Your task to perform on an android device: Add razer blade to the cart on walmart.com, then select checkout. Image 0: 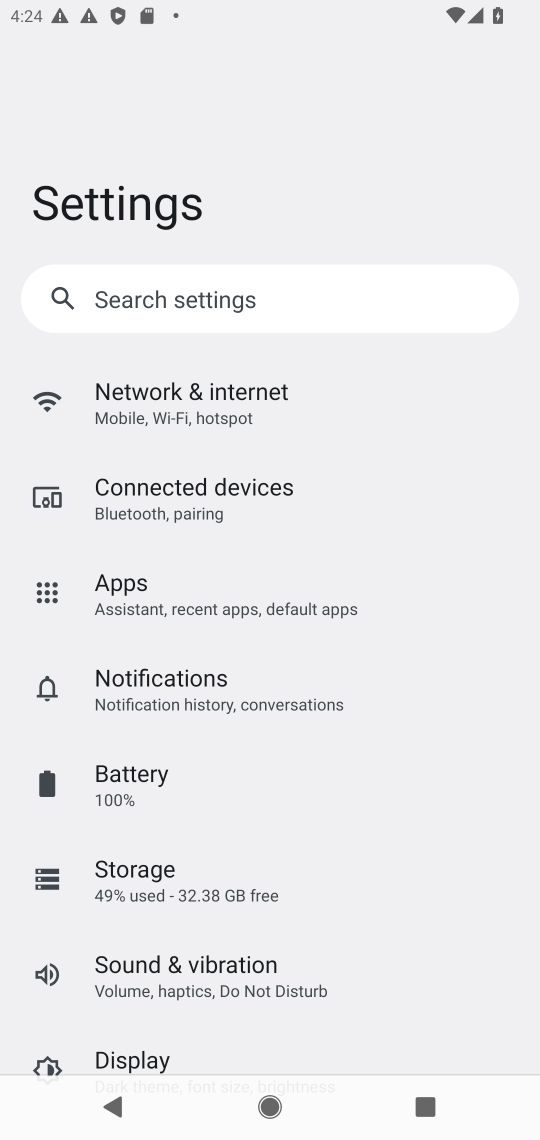
Step 0: press home button
Your task to perform on an android device: Add razer blade to the cart on walmart.com, then select checkout. Image 1: 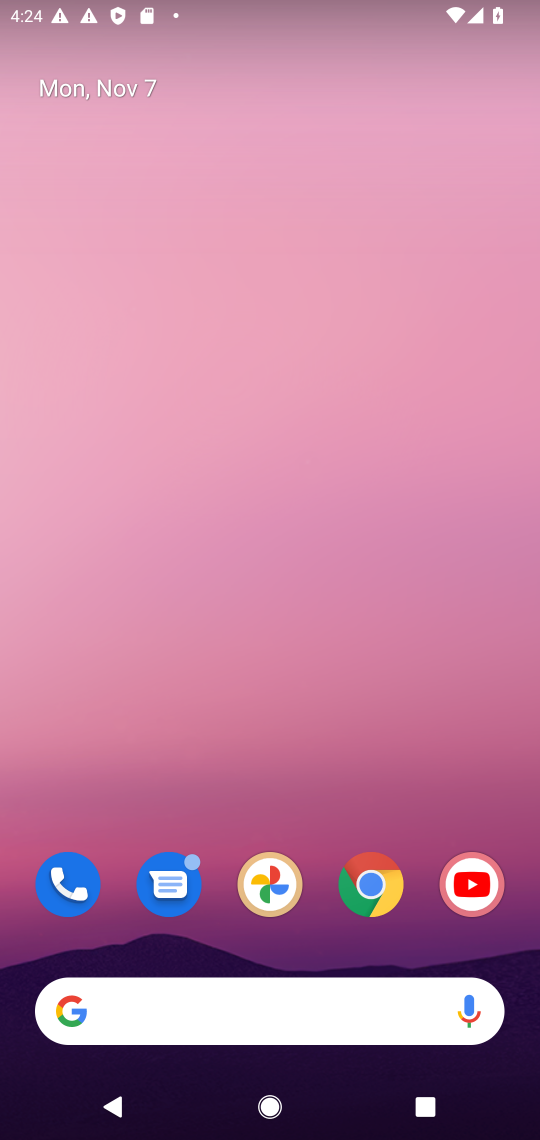
Step 1: drag from (293, 977) to (363, 125)
Your task to perform on an android device: Add razer blade to the cart on walmart.com, then select checkout. Image 2: 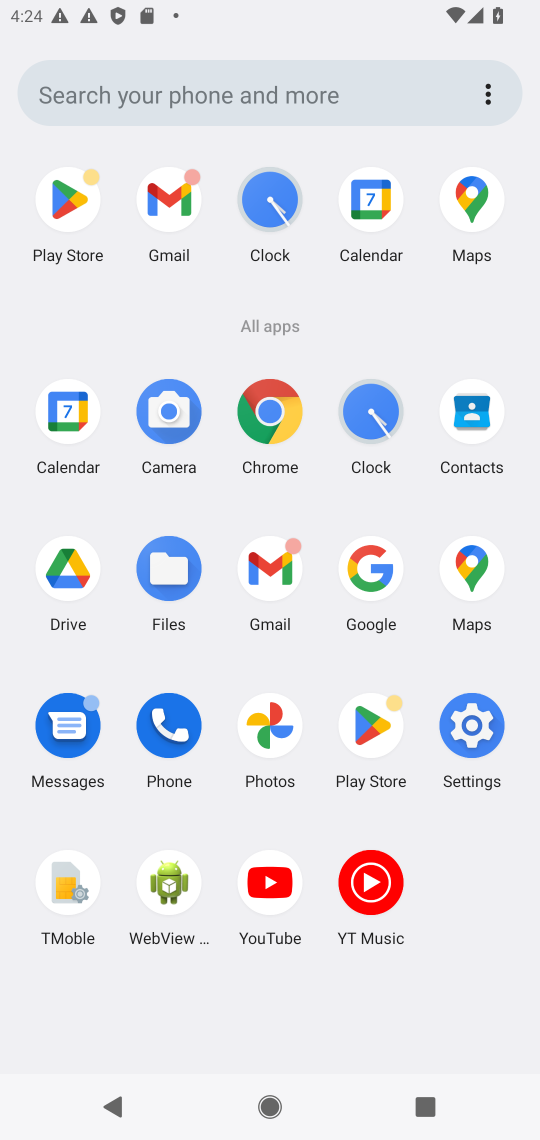
Step 2: click (278, 407)
Your task to perform on an android device: Add razer blade to the cart on walmart.com, then select checkout. Image 3: 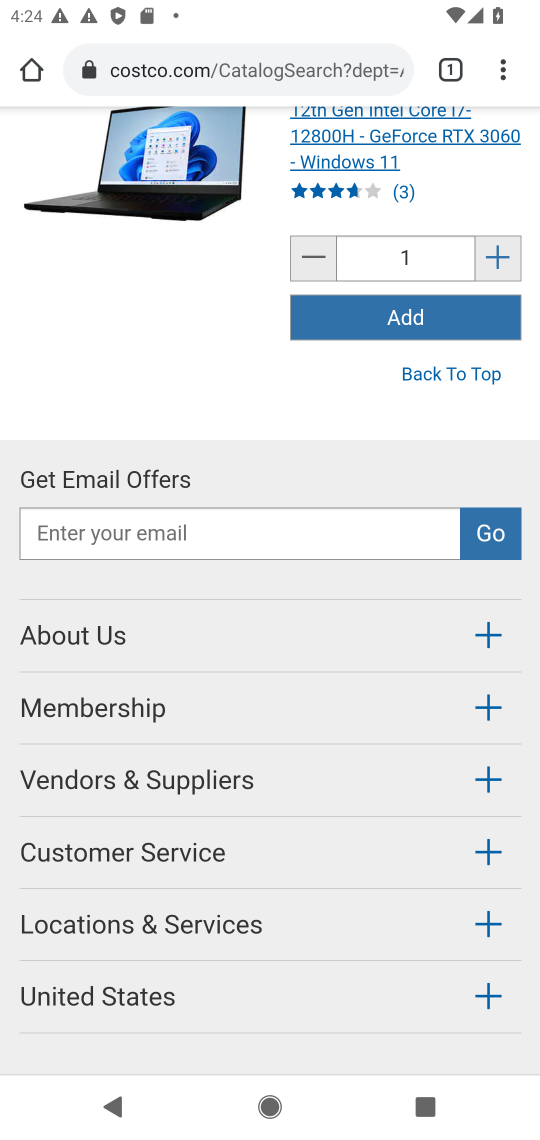
Step 3: click (219, 66)
Your task to perform on an android device: Add razer blade to the cart on walmart.com, then select checkout. Image 4: 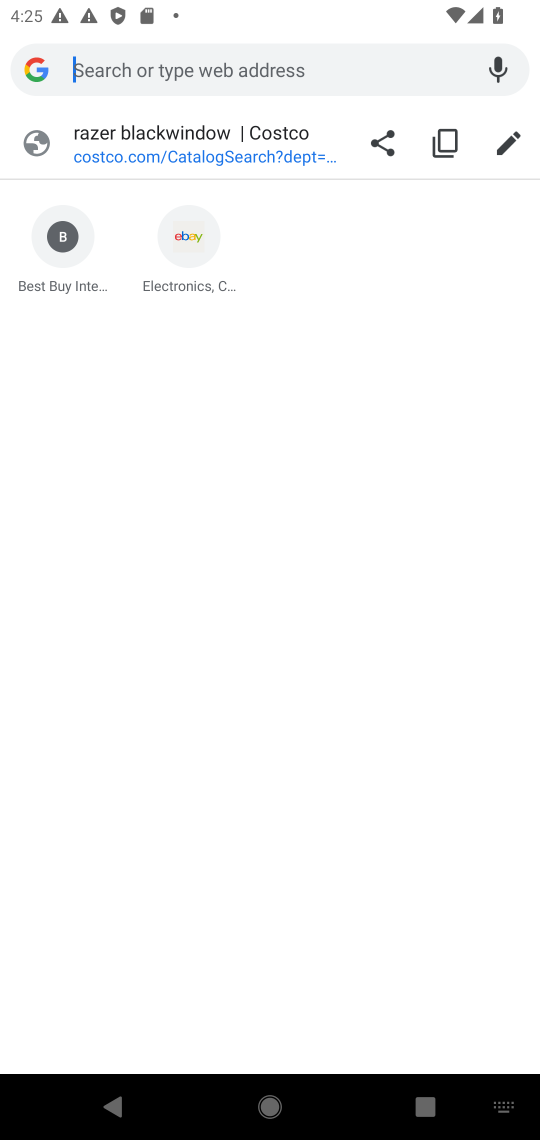
Step 4: type "walmart.com"
Your task to perform on an android device: Add razer blade to the cart on walmart.com, then select checkout. Image 5: 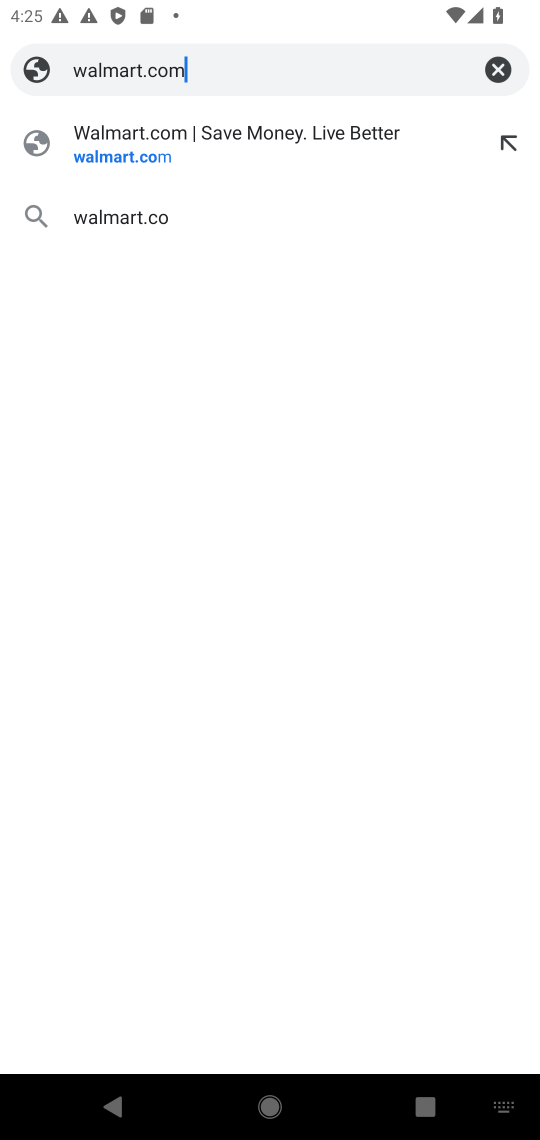
Step 5: press enter
Your task to perform on an android device: Add razer blade to the cart on walmart.com, then select checkout. Image 6: 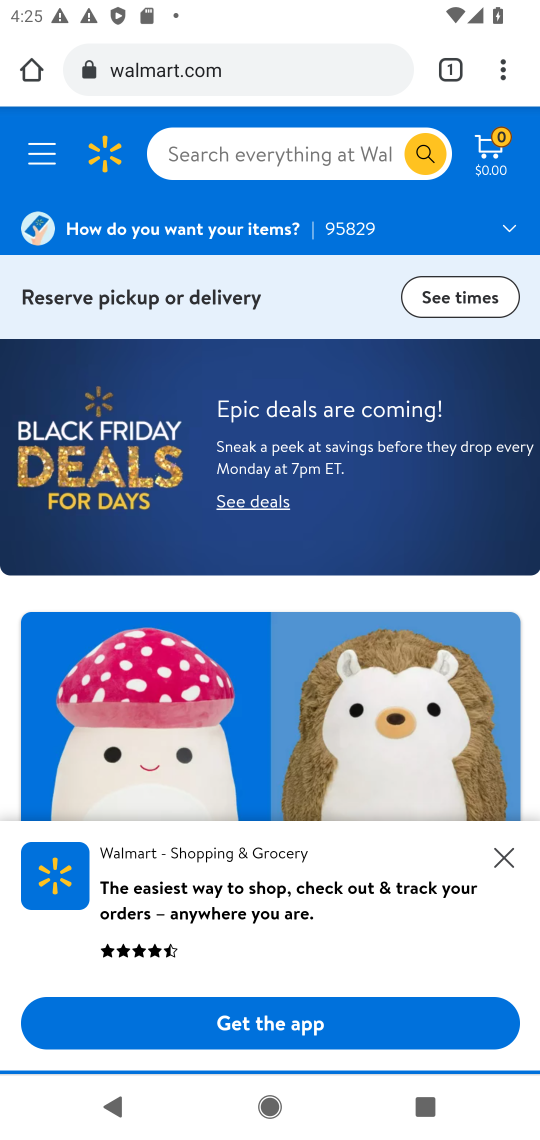
Step 6: click (323, 161)
Your task to perform on an android device: Add razer blade to the cart on walmart.com, then select checkout. Image 7: 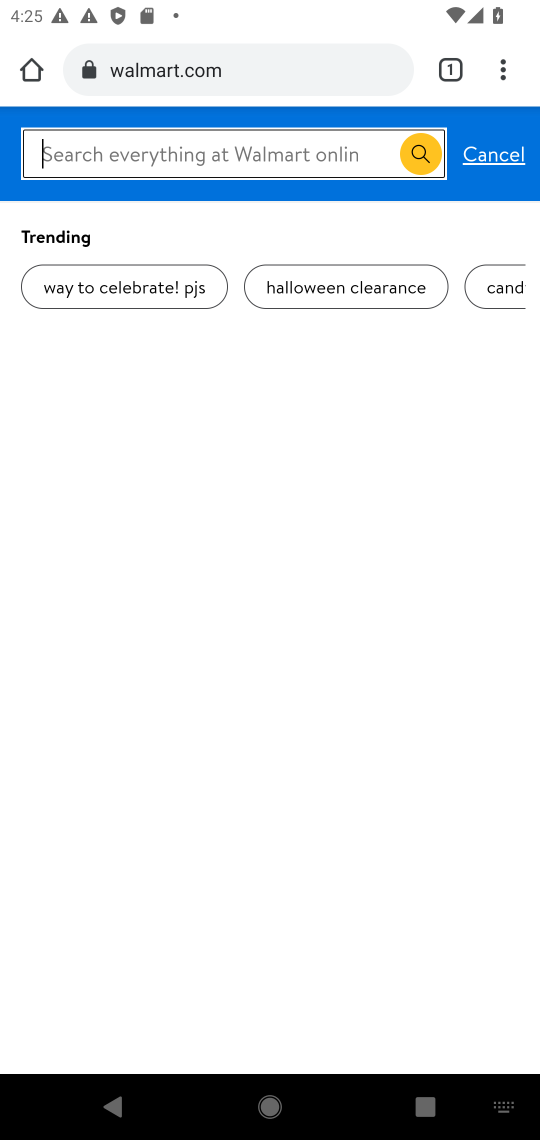
Step 7: type "razer blade"
Your task to perform on an android device: Add razer blade to the cart on walmart.com, then select checkout. Image 8: 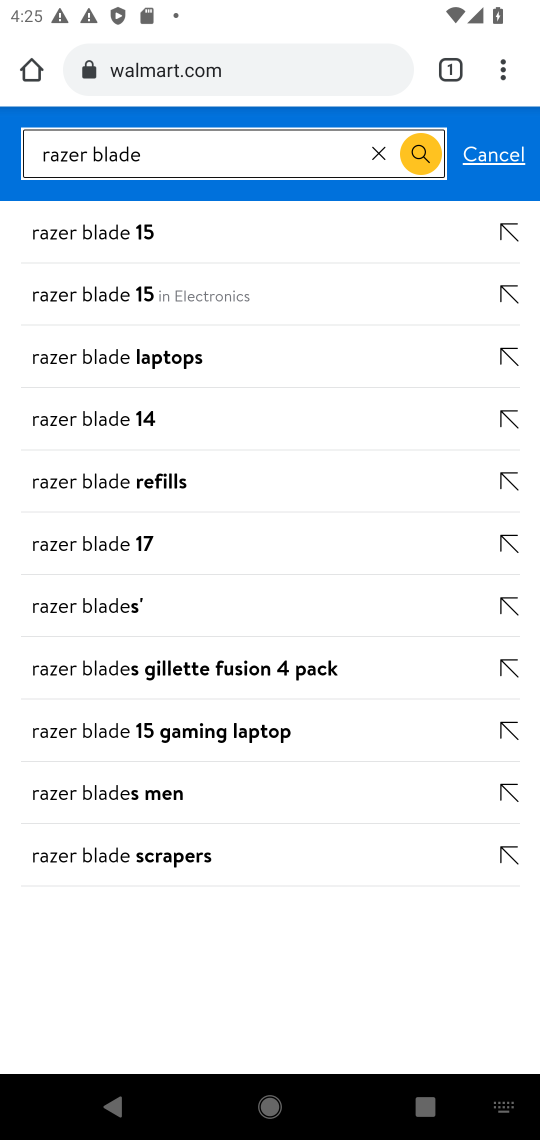
Step 8: press enter
Your task to perform on an android device: Add razer blade to the cart on walmart.com, then select checkout. Image 9: 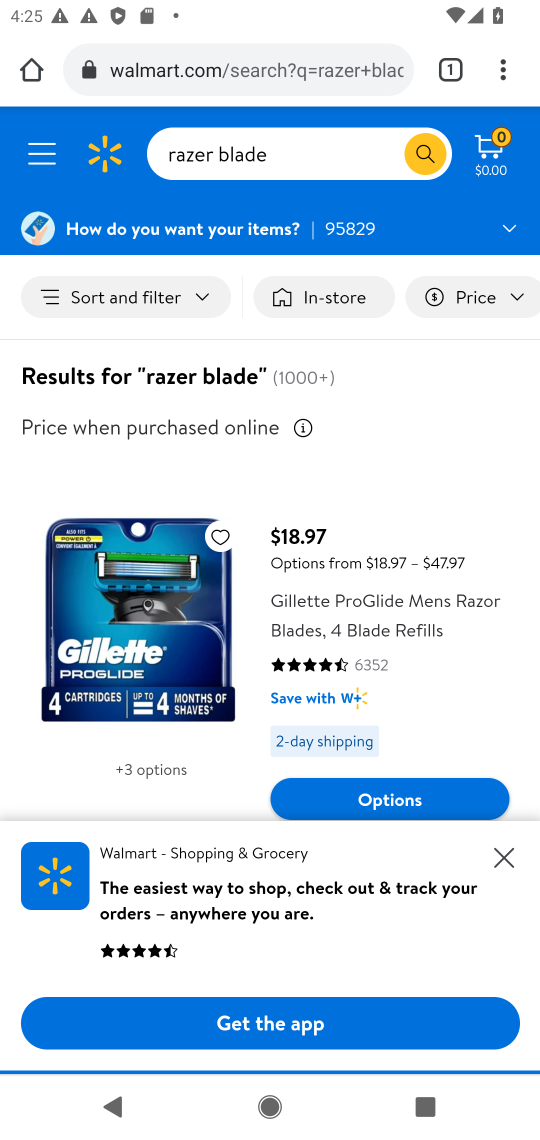
Step 9: task complete